Your task to perform on an android device: open chrome privacy settings Image 0: 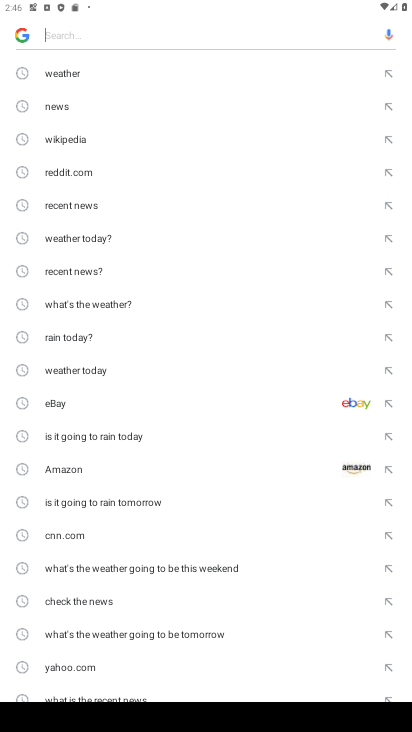
Step 0: press home button
Your task to perform on an android device: open chrome privacy settings Image 1: 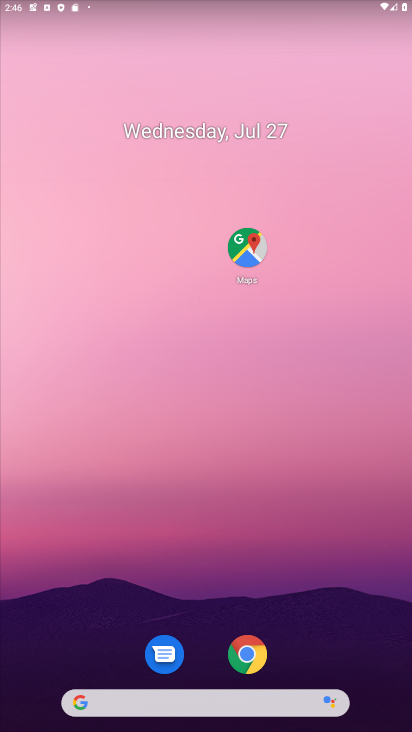
Step 1: drag from (36, 591) to (244, 76)
Your task to perform on an android device: open chrome privacy settings Image 2: 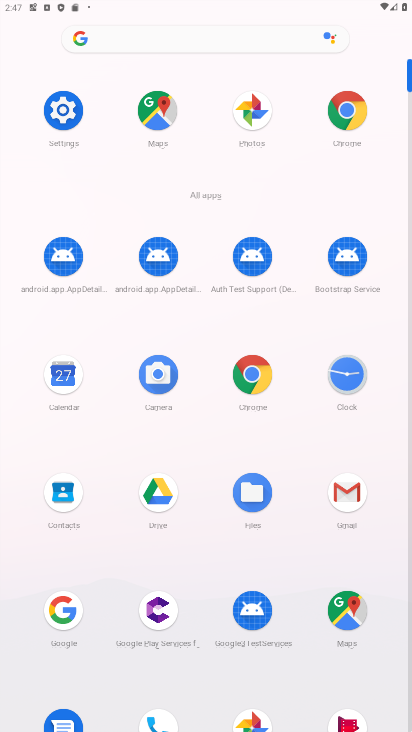
Step 2: click (249, 374)
Your task to perform on an android device: open chrome privacy settings Image 3: 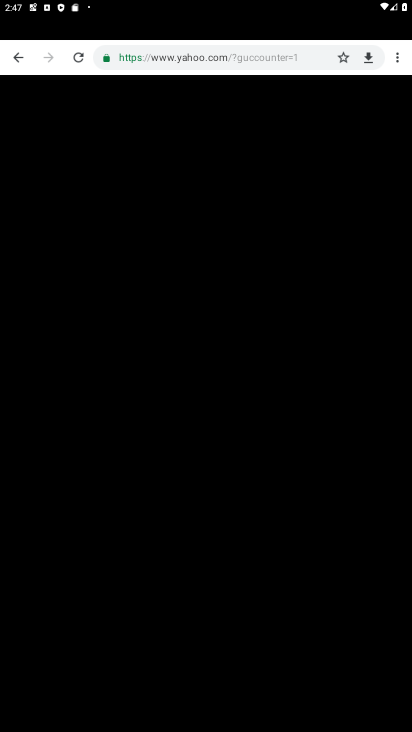
Step 3: click (395, 48)
Your task to perform on an android device: open chrome privacy settings Image 4: 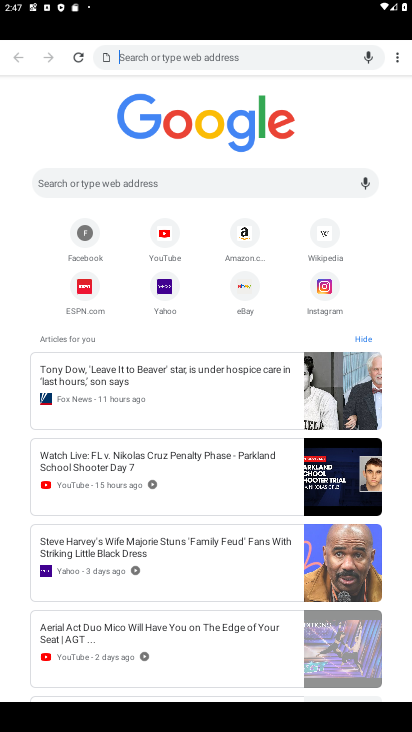
Step 4: click (395, 59)
Your task to perform on an android device: open chrome privacy settings Image 5: 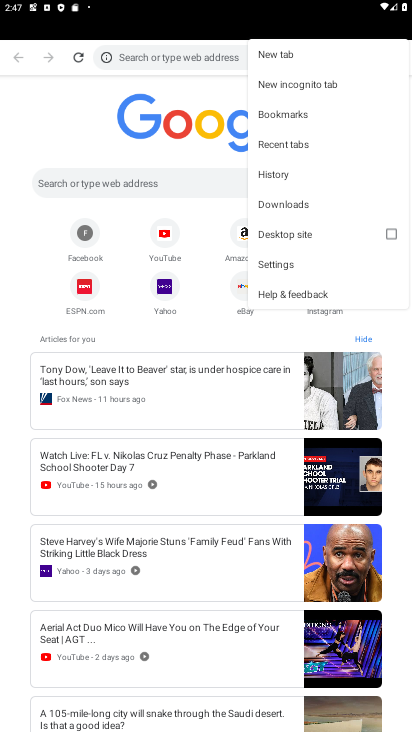
Step 5: click (275, 257)
Your task to perform on an android device: open chrome privacy settings Image 6: 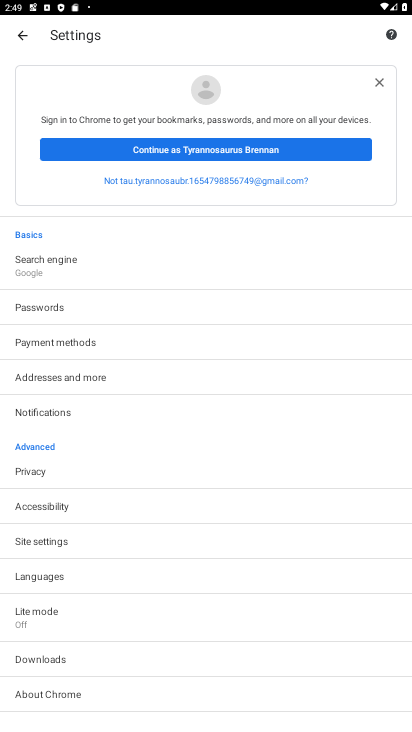
Step 6: click (63, 472)
Your task to perform on an android device: open chrome privacy settings Image 7: 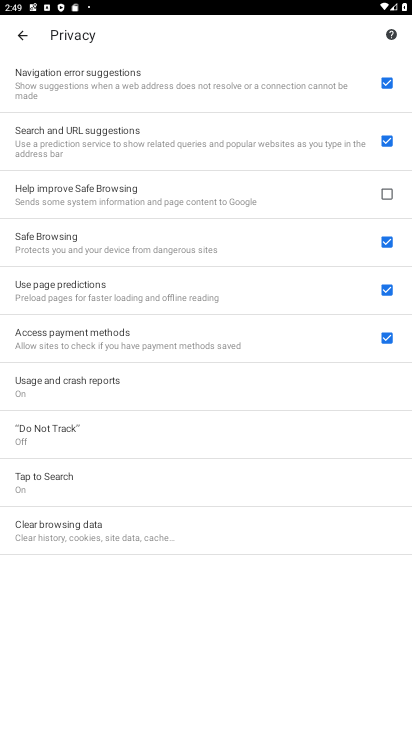
Step 7: task complete